Your task to perform on an android device: check out phone information Image 0: 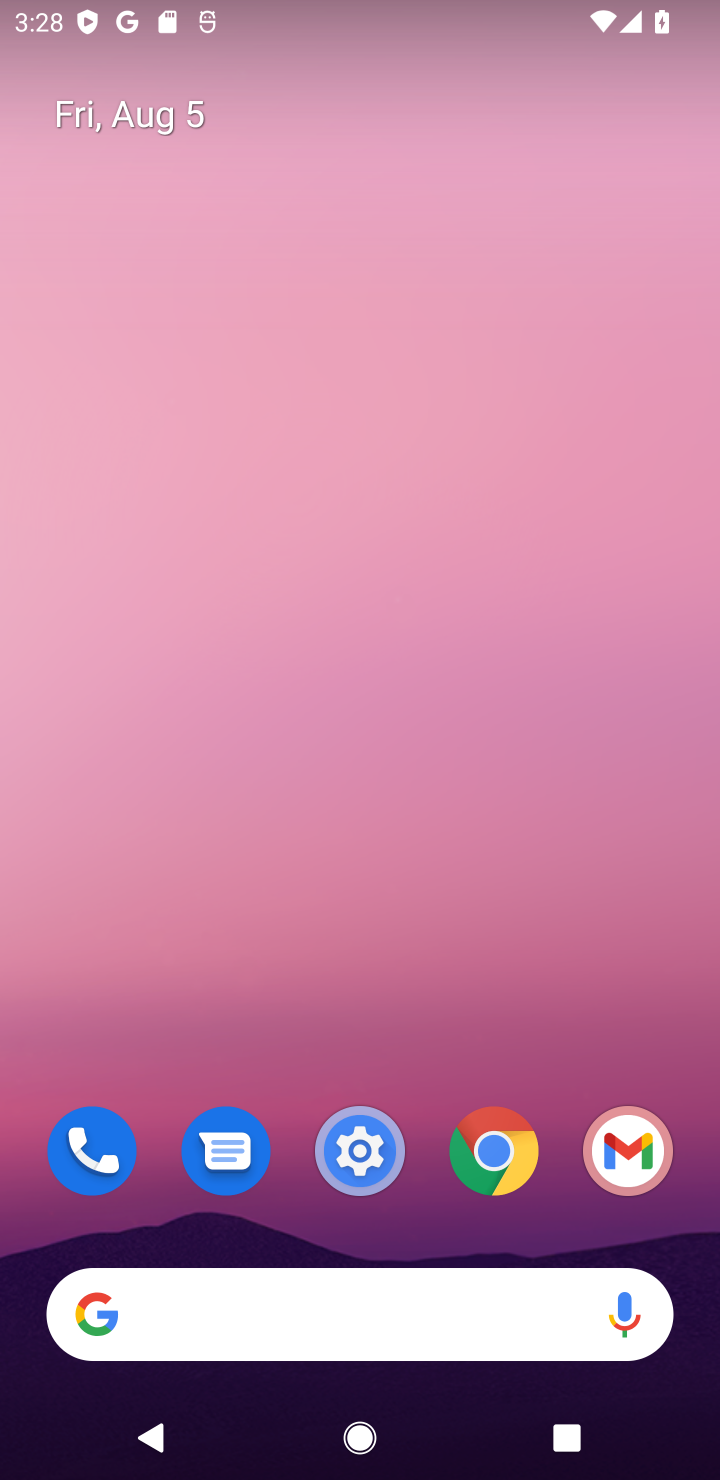
Step 0: click (365, 1152)
Your task to perform on an android device: check out phone information Image 1: 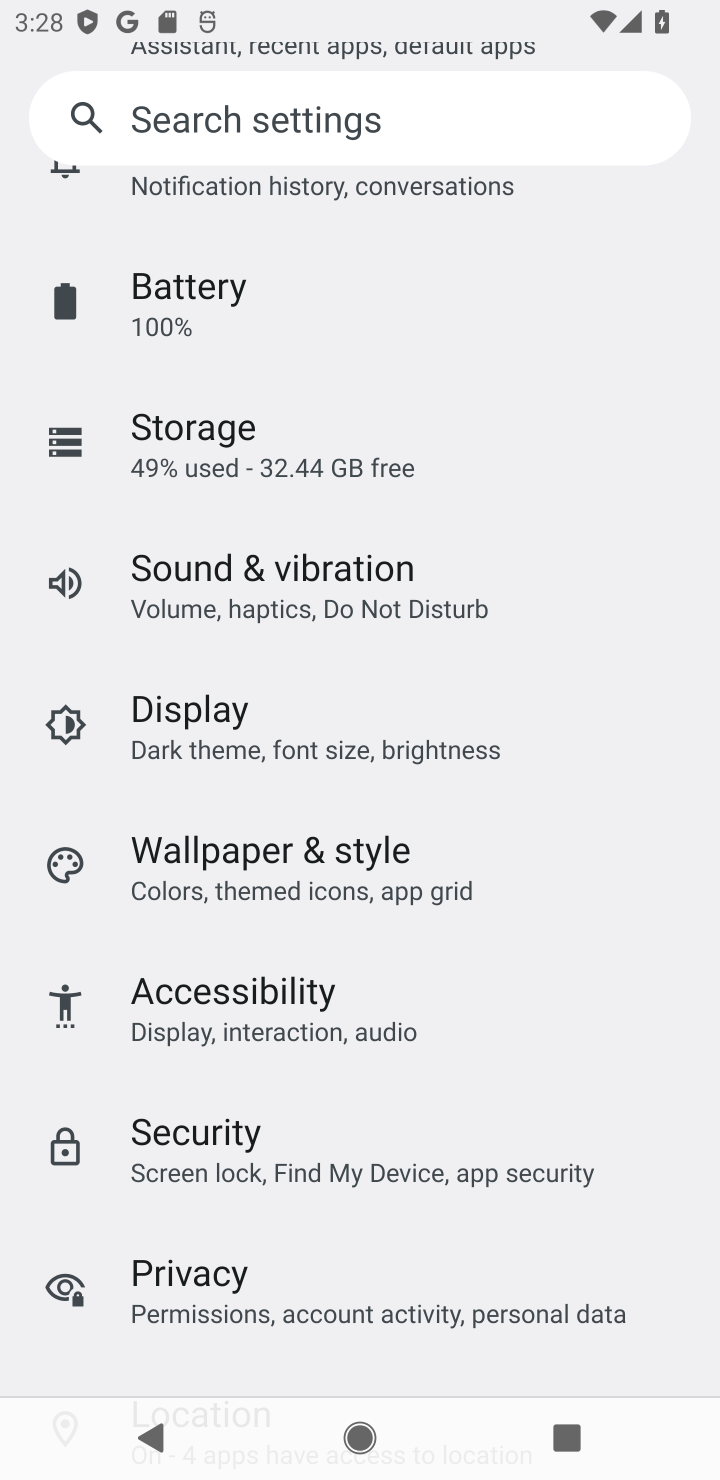
Step 1: drag from (298, 1173) to (284, 328)
Your task to perform on an android device: check out phone information Image 2: 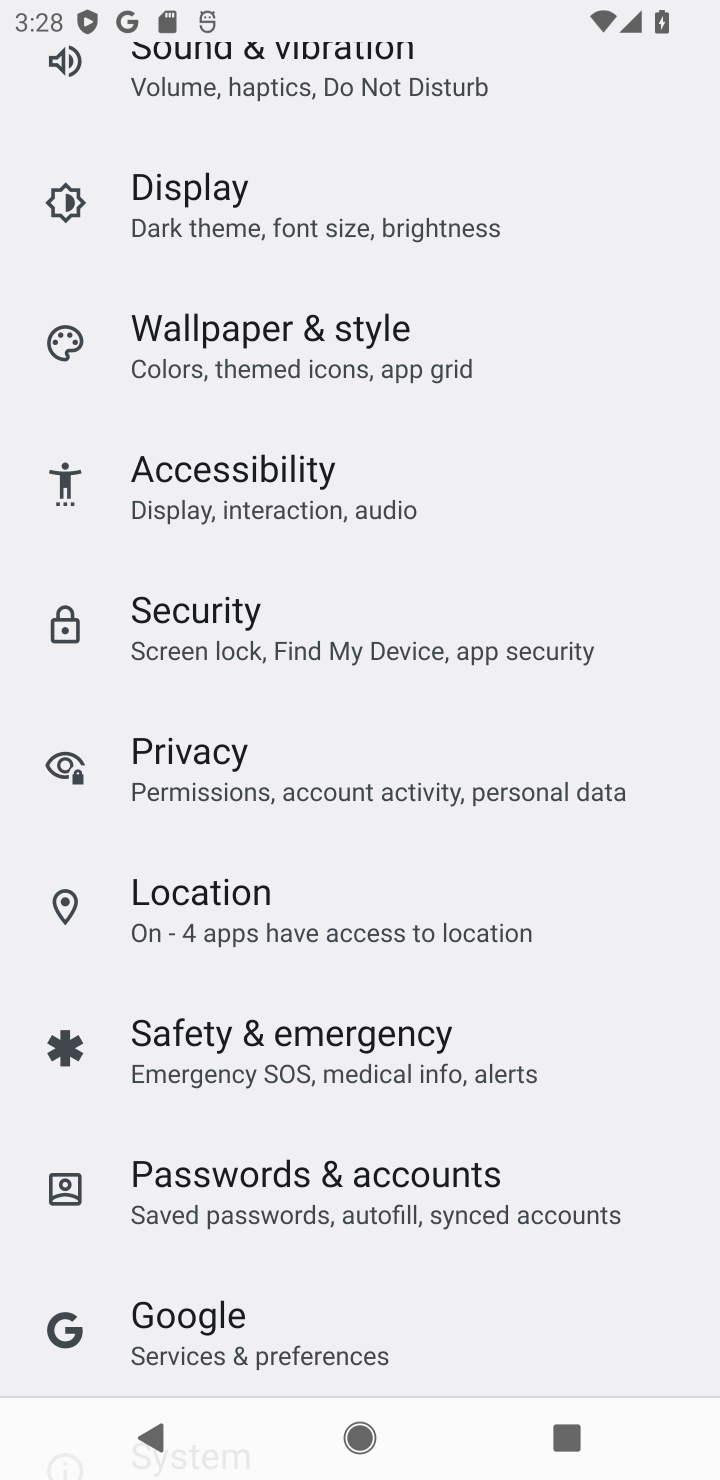
Step 2: drag from (332, 1105) to (332, 453)
Your task to perform on an android device: check out phone information Image 3: 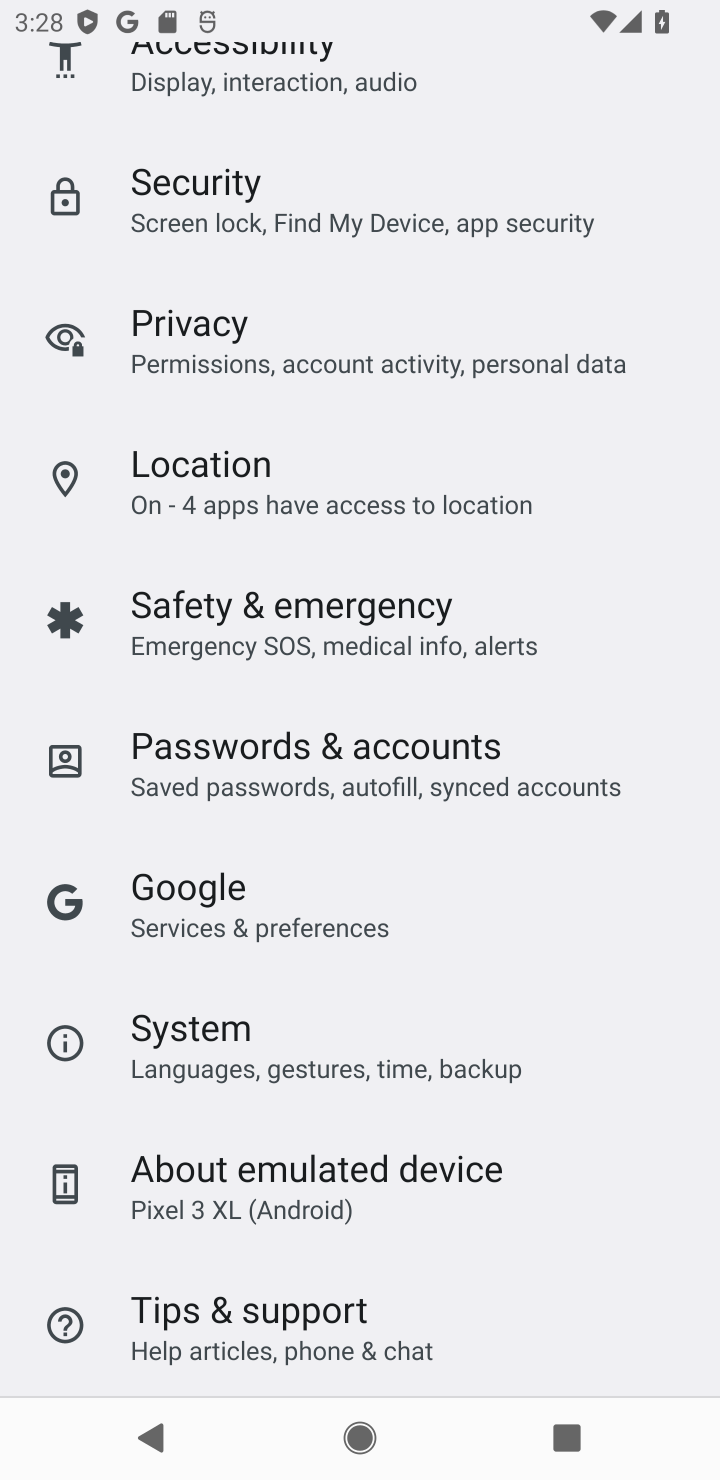
Step 3: click (422, 1210)
Your task to perform on an android device: check out phone information Image 4: 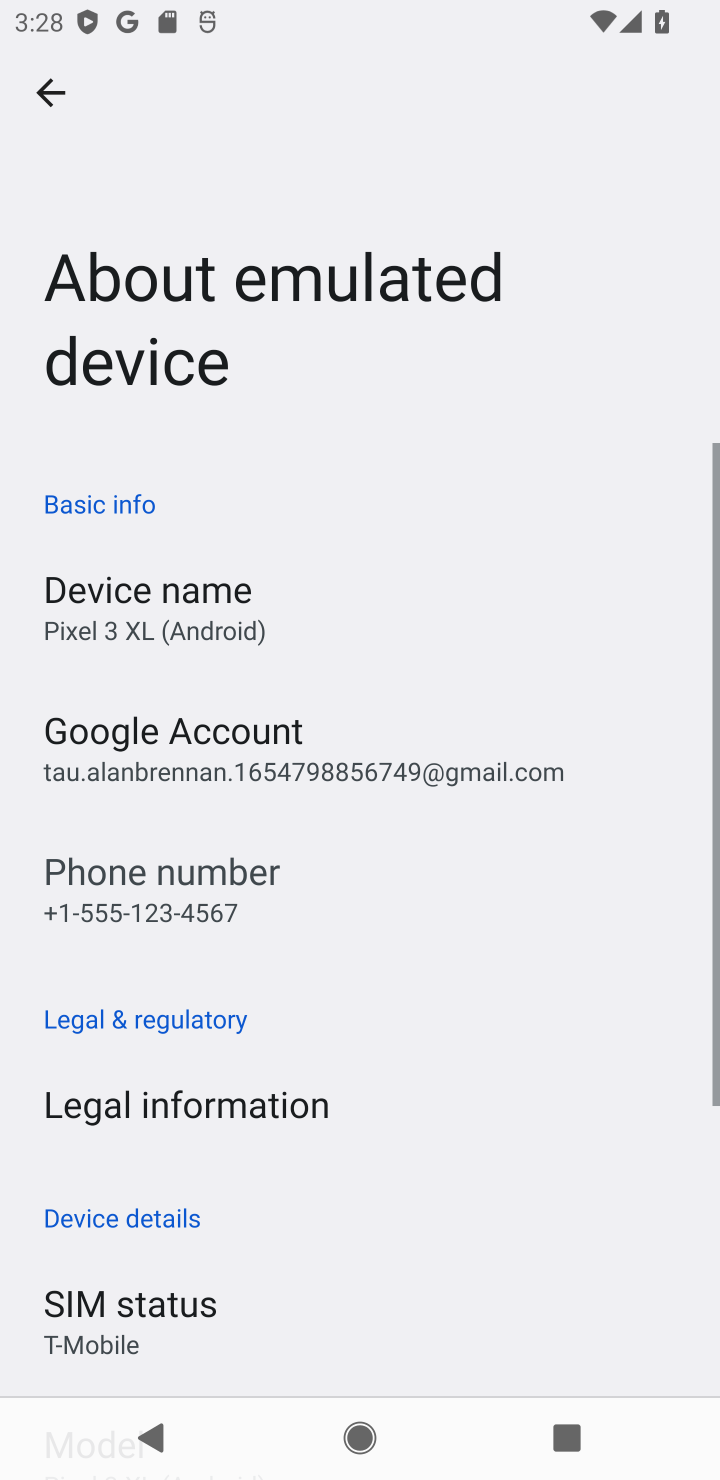
Step 4: task complete